Your task to perform on an android device: see sites visited before in the chrome app Image 0: 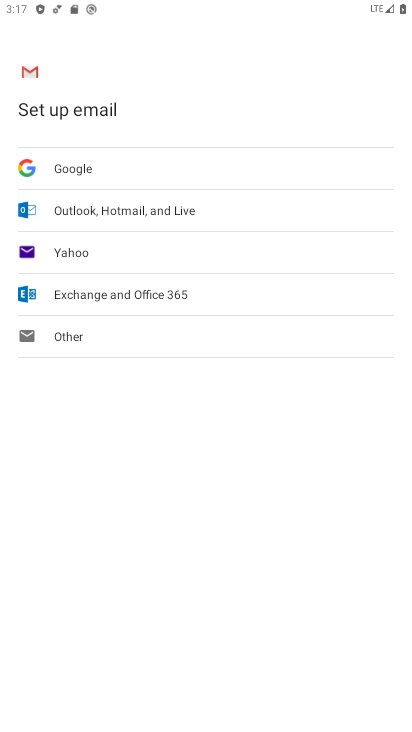
Step 0: click (136, 652)
Your task to perform on an android device: see sites visited before in the chrome app Image 1: 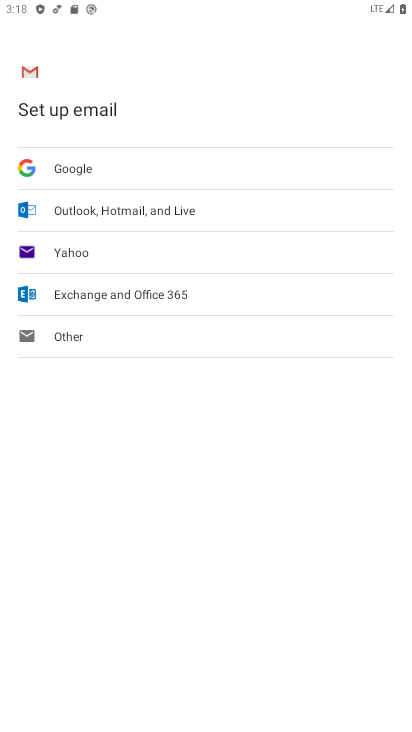
Step 1: press home button
Your task to perform on an android device: see sites visited before in the chrome app Image 2: 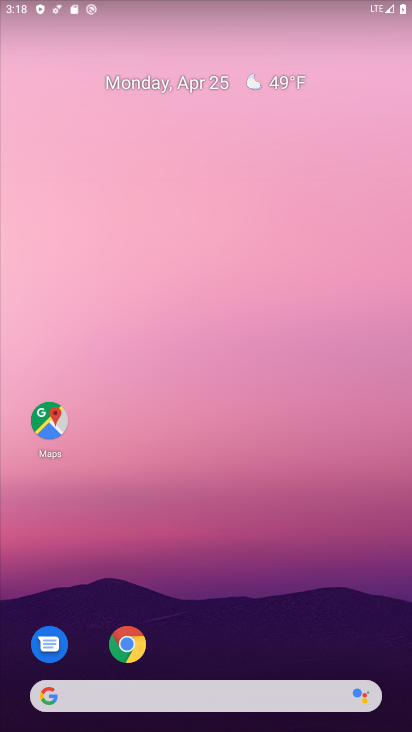
Step 2: click (140, 646)
Your task to perform on an android device: see sites visited before in the chrome app Image 3: 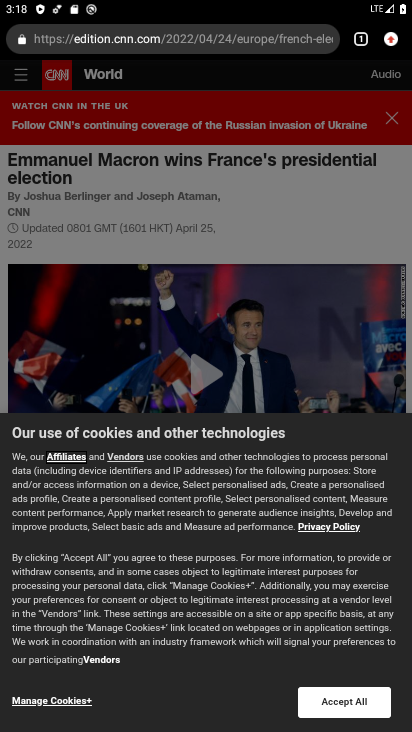
Step 3: click (395, 46)
Your task to perform on an android device: see sites visited before in the chrome app Image 4: 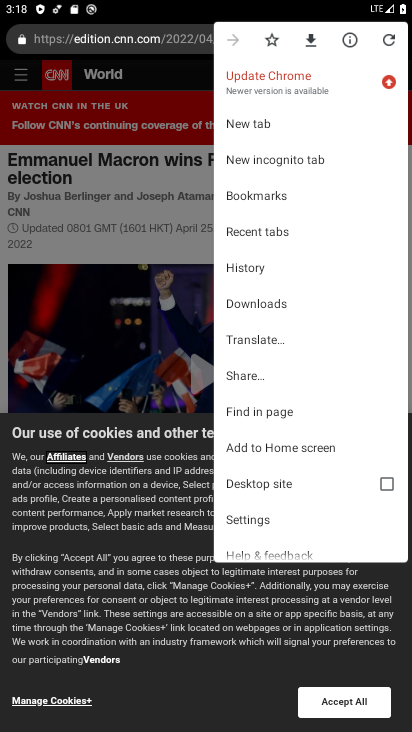
Step 4: click (282, 314)
Your task to perform on an android device: see sites visited before in the chrome app Image 5: 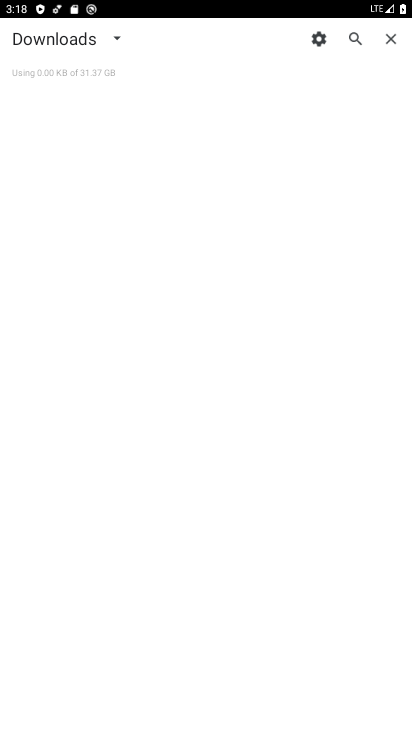
Step 5: task complete